Your task to perform on an android device: uninstall "Gmail" Image 0: 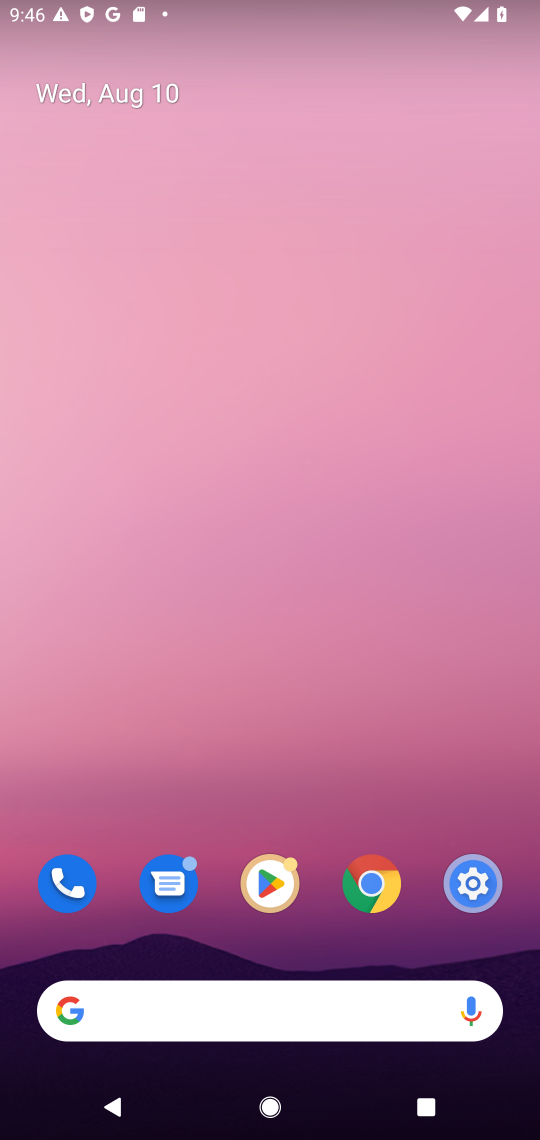
Step 0: drag from (432, 766) to (424, 54)
Your task to perform on an android device: uninstall "Gmail" Image 1: 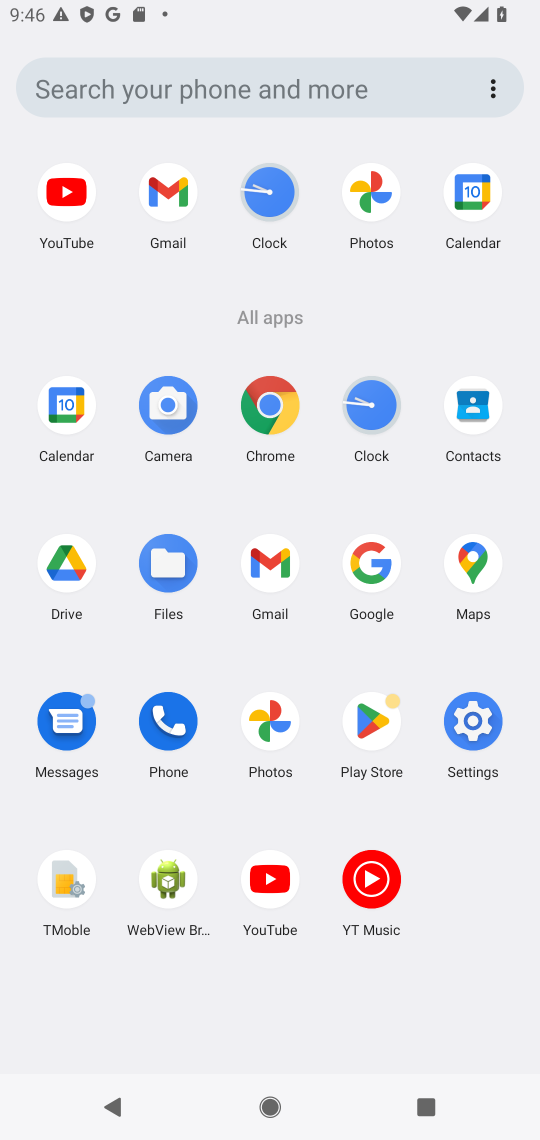
Step 1: click (366, 718)
Your task to perform on an android device: uninstall "Gmail" Image 2: 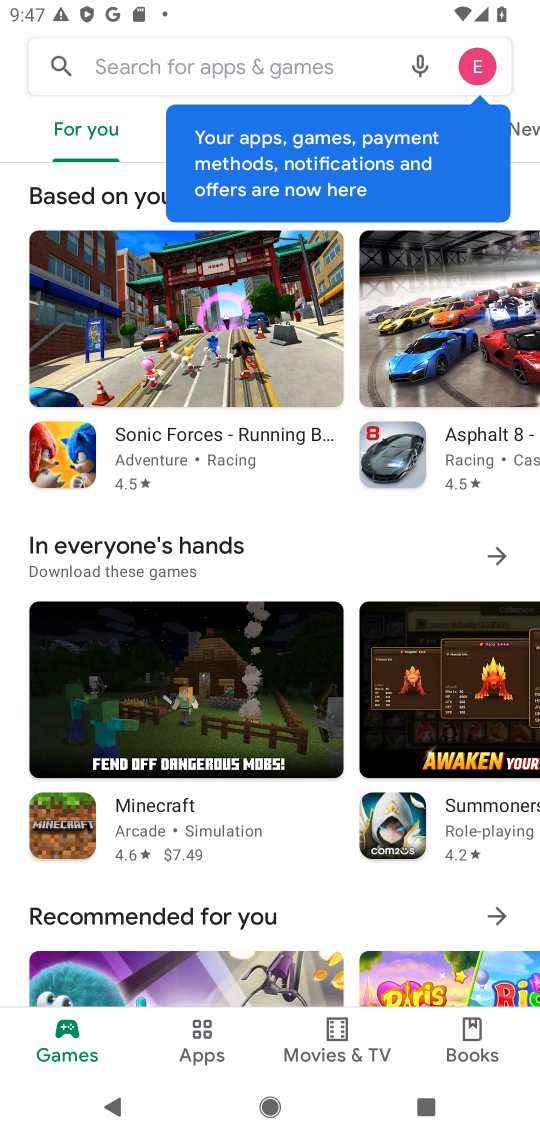
Step 2: click (294, 61)
Your task to perform on an android device: uninstall "Gmail" Image 3: 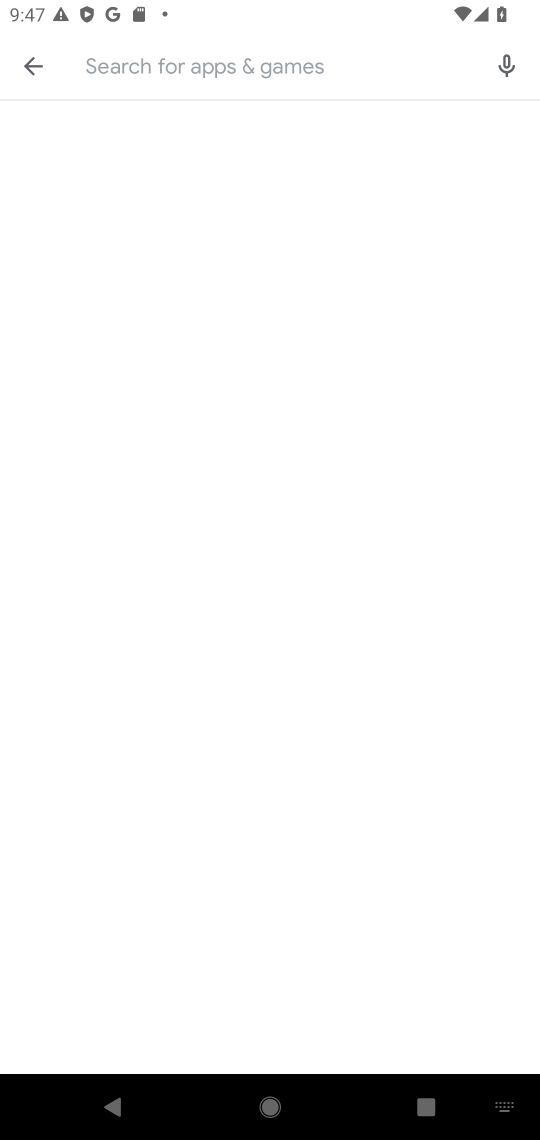
Step 3: type "gmail"
Your task to perform on an android device: uninstall "Gmail" Image 4: 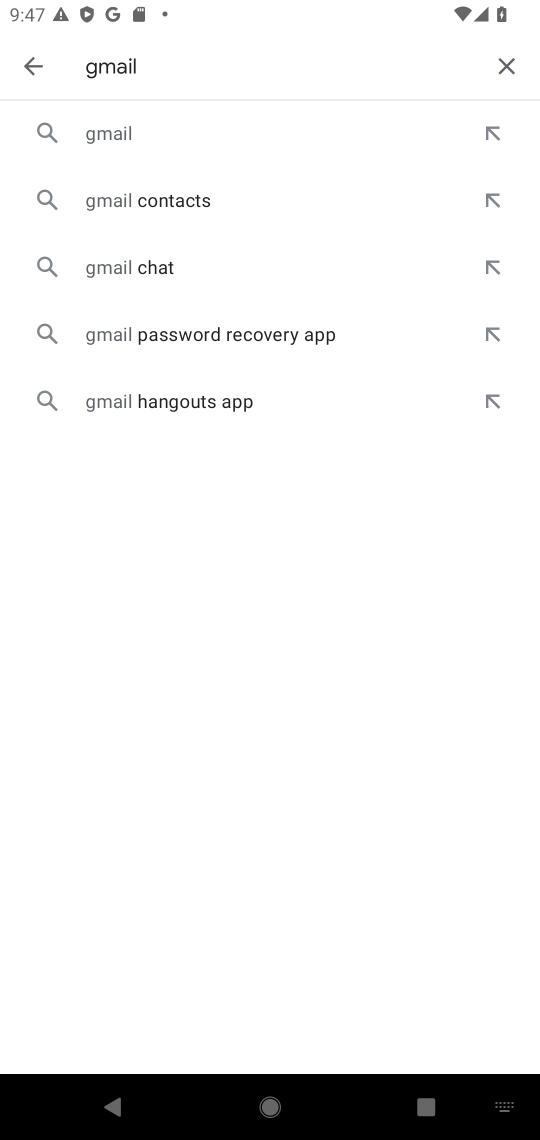
Step 4: click (147, 138)
Your task to perform on an android device: uninstall "Gmail" Image 5: 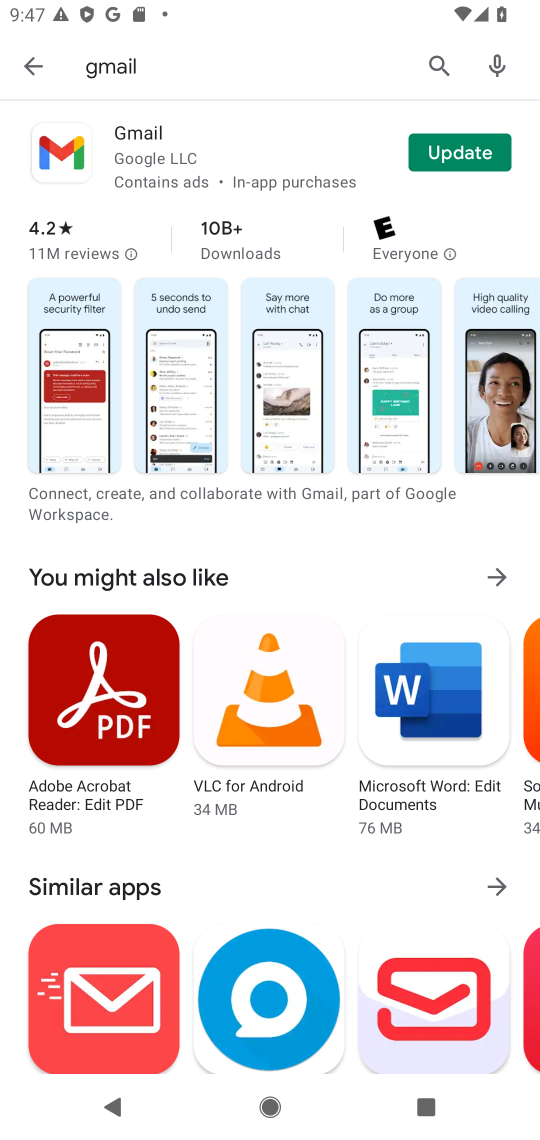
Step 5: task complete